Your task to perform on an android device: Open wifi settings Image 0: 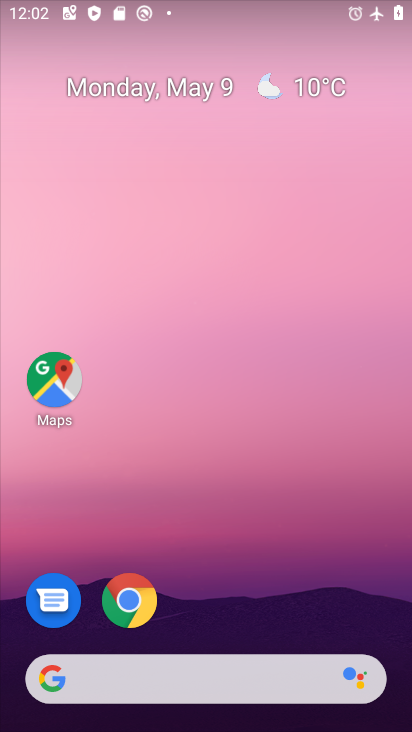
Step 0: drag from (175, 632) to (192, 149)
Your task to perform on an android device: Open wifi settings Image 1: 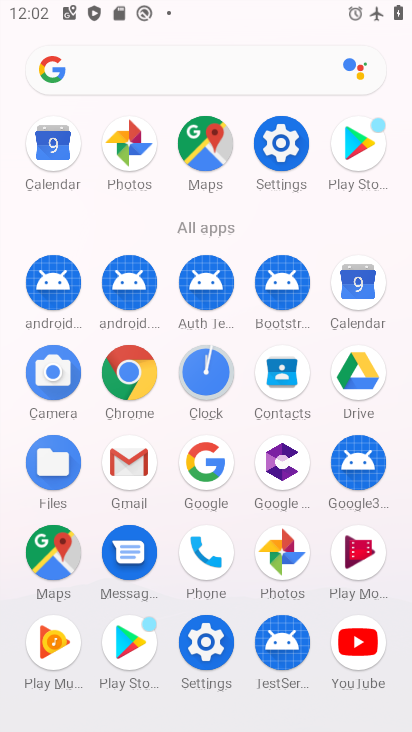
Step 1: click (275, 143)
Your task to perform on an android device: Open wifi settings Image 2: 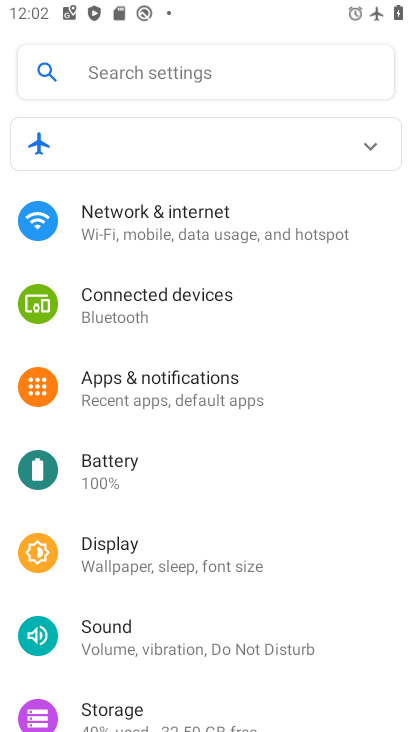
Step 2: click (189, 230)
Your task to perform on an android device: Open wifi settings Image 3: 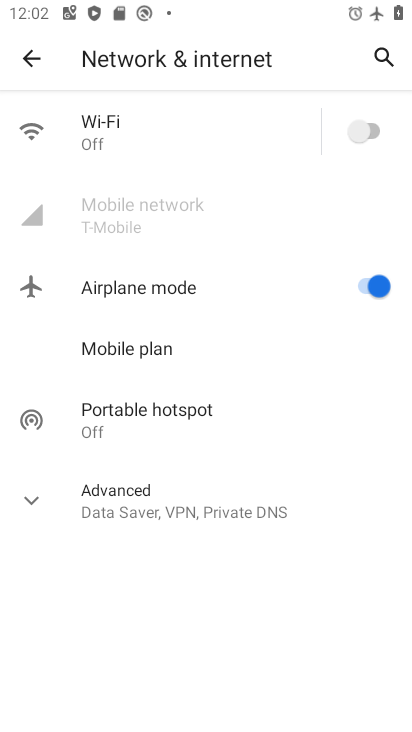
Step 3: task complete